Your task to perform on an android device: Show me productivity apps on the Play Store Image 0: 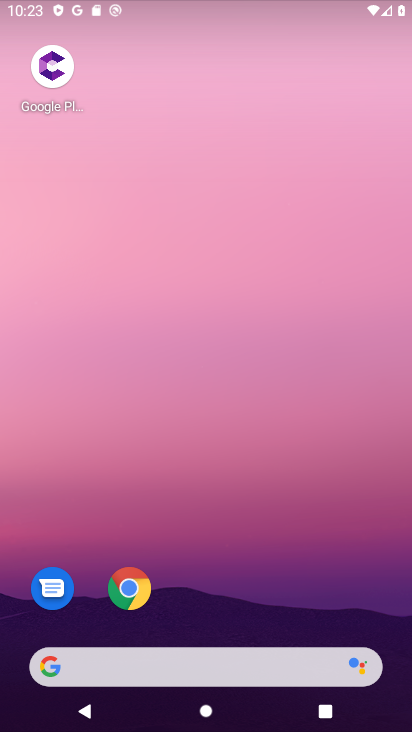
Step 0: drag from (376, 611) to (372, 134)
Your task to perform on an android device: Show me productivity apps on the Play Store Image 1: 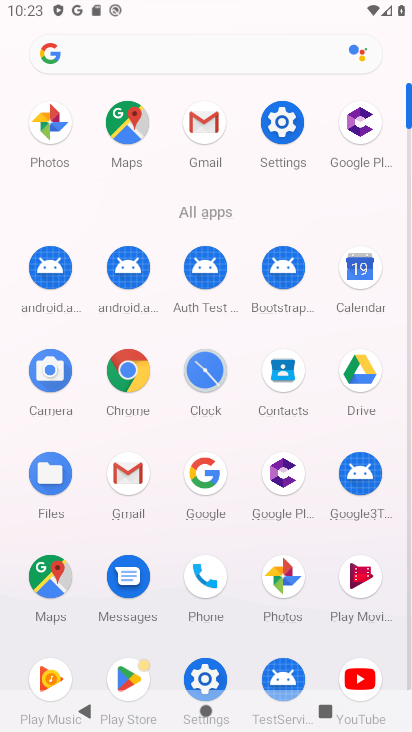
Step 1: click (132, 672)
Your task to perform on an android device: Show me productivity apps on the Play Store Image 2: 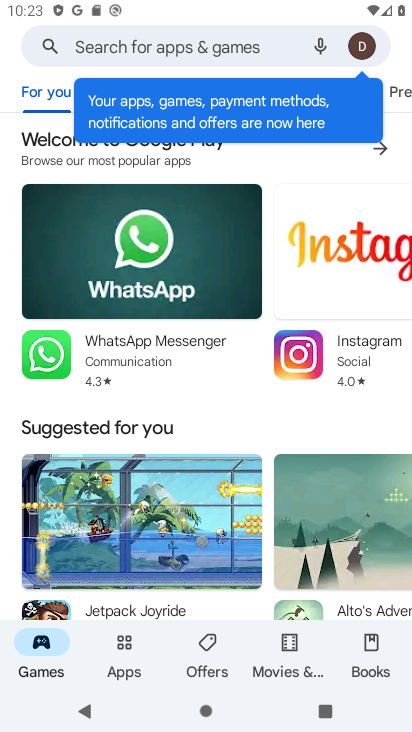
Step 2: click (133, 652)
Your task to perform on an android device: Show me productivity apps on the Play Store Image 3: 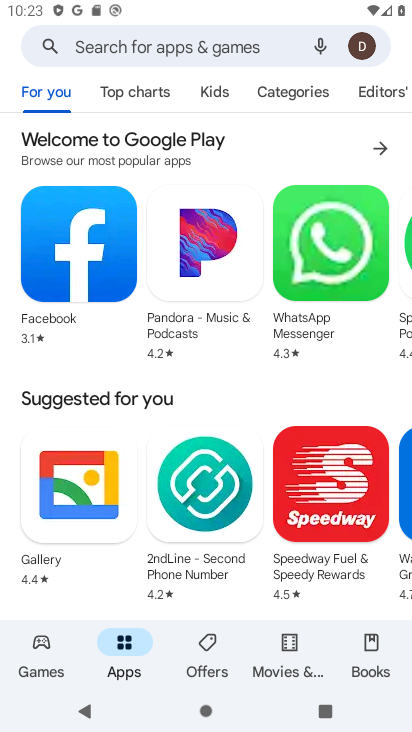
Step 3: click (286, 92)
Your task to perform on an android device: Show me productivity apps on the Play Store Image 4: 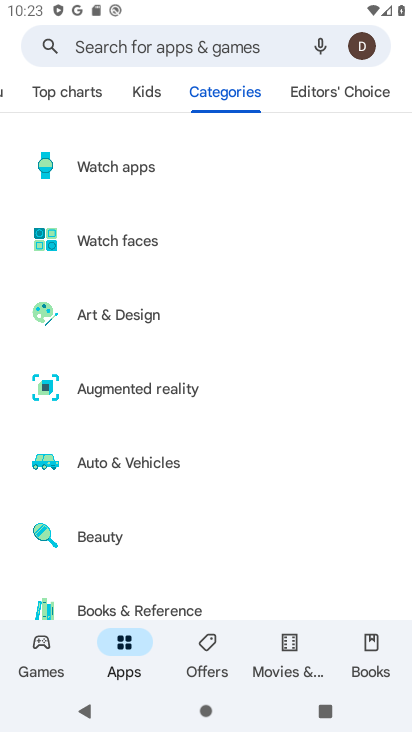
Step 4: drag from (257, 573) to (237, 153)
Your task to perform on an android device: Show me productivity apps on the Play Store Image 5: 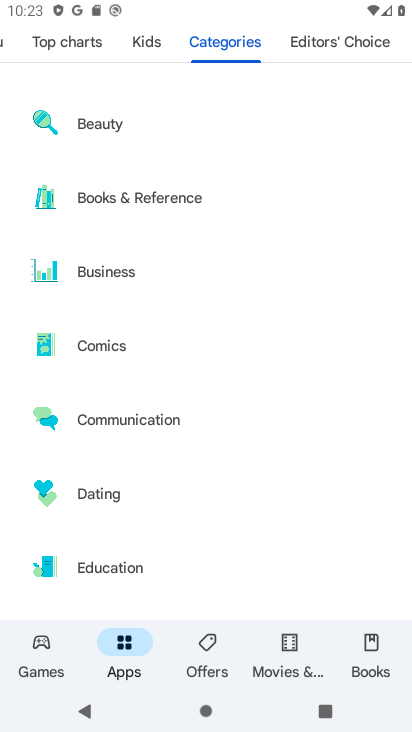
Step 5: drag from (237, 153) to (222, 12)
Your task to perform on an android device: Show me productivity apps on the Play Store Image 6: 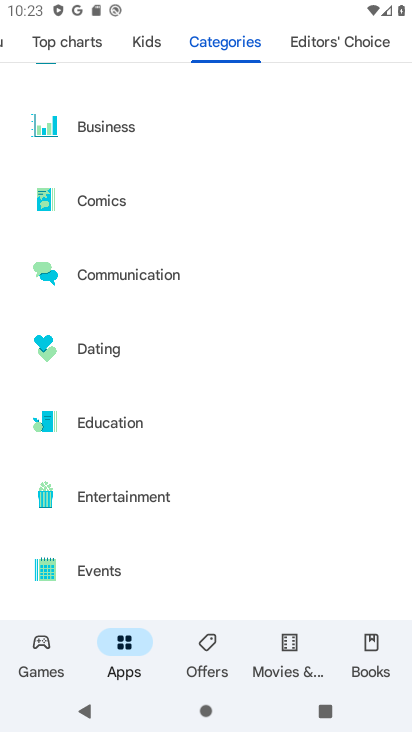
Step 6: drag from (221, 543) to (182, 207)
Your task to perform on an android device: Show me productivity apps on the Play Store Image 7: 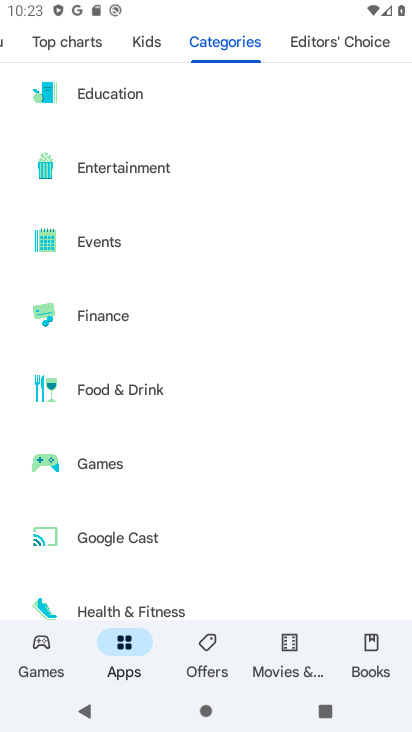
Step 7: drag from (171, 531) to (171, 116)
Your task to perform on an android device: Show me productivity apps on the Play Store Image 8: 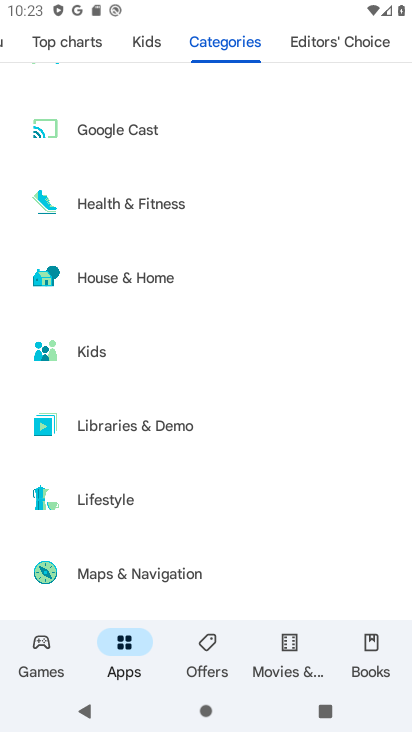
Step 8: drag from (251, 570) to (205, 177)
Your task to perform on an android device: Show me productivity apps on the Play Store Image 9: 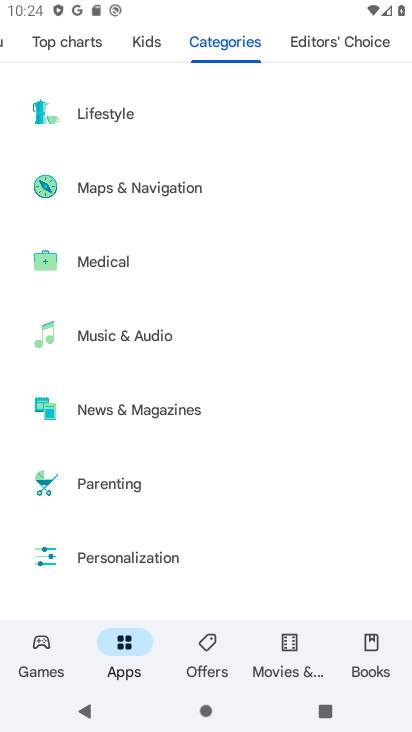
Step 9: drag from (191, 521) to (215, 253)
Your task to perform on an android device: Show me productivity apps on the Play Store Image 10: 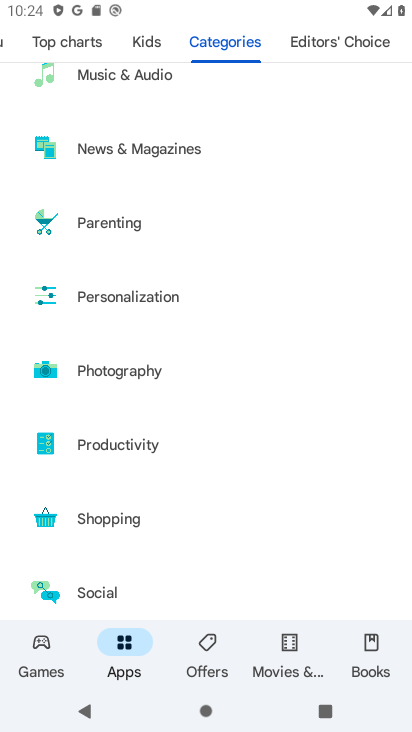
Step 10: click (105, 438)
Your task to perform on an android device: Show me productivity apps on the Play Store Image 11: 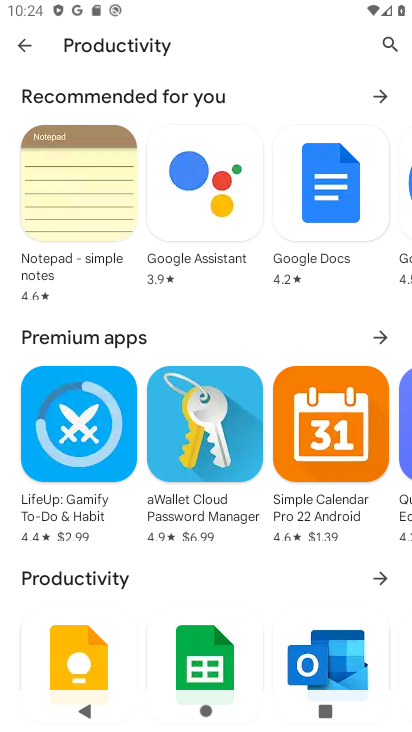
Step 11: click (379, 575)
Your task to perform on an android device: Show me productivity apps on the Play Store Image 12: 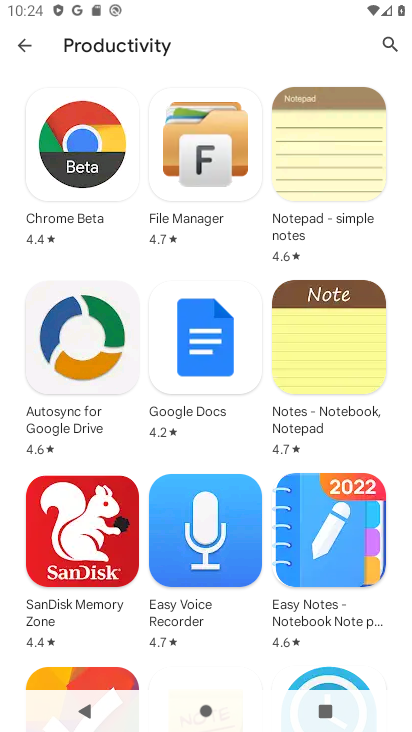
Step 12: task complete